Your task to perform on an android device: set the stopwatch Image 0: 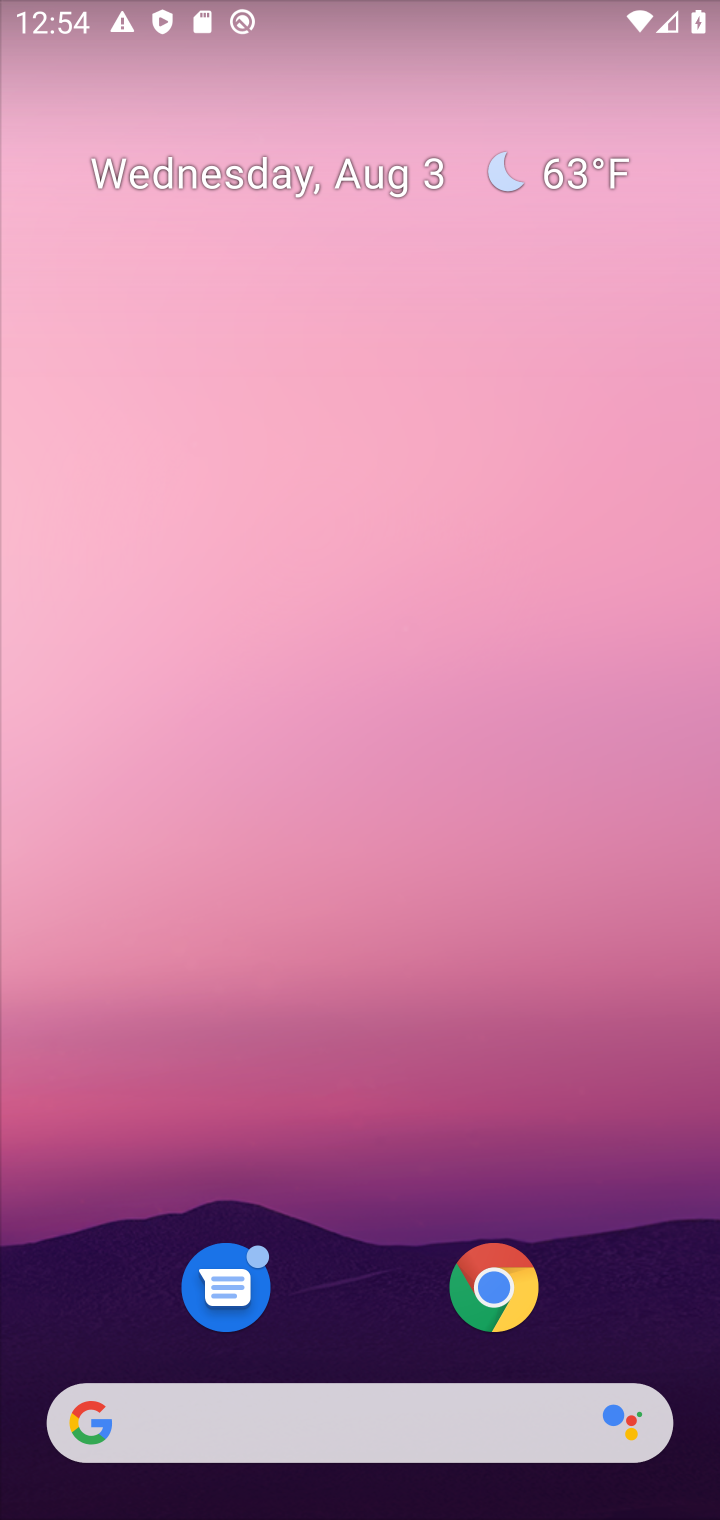
Step 0: press home button
Your task to perform on an android device: set the stopwatch Image 1: 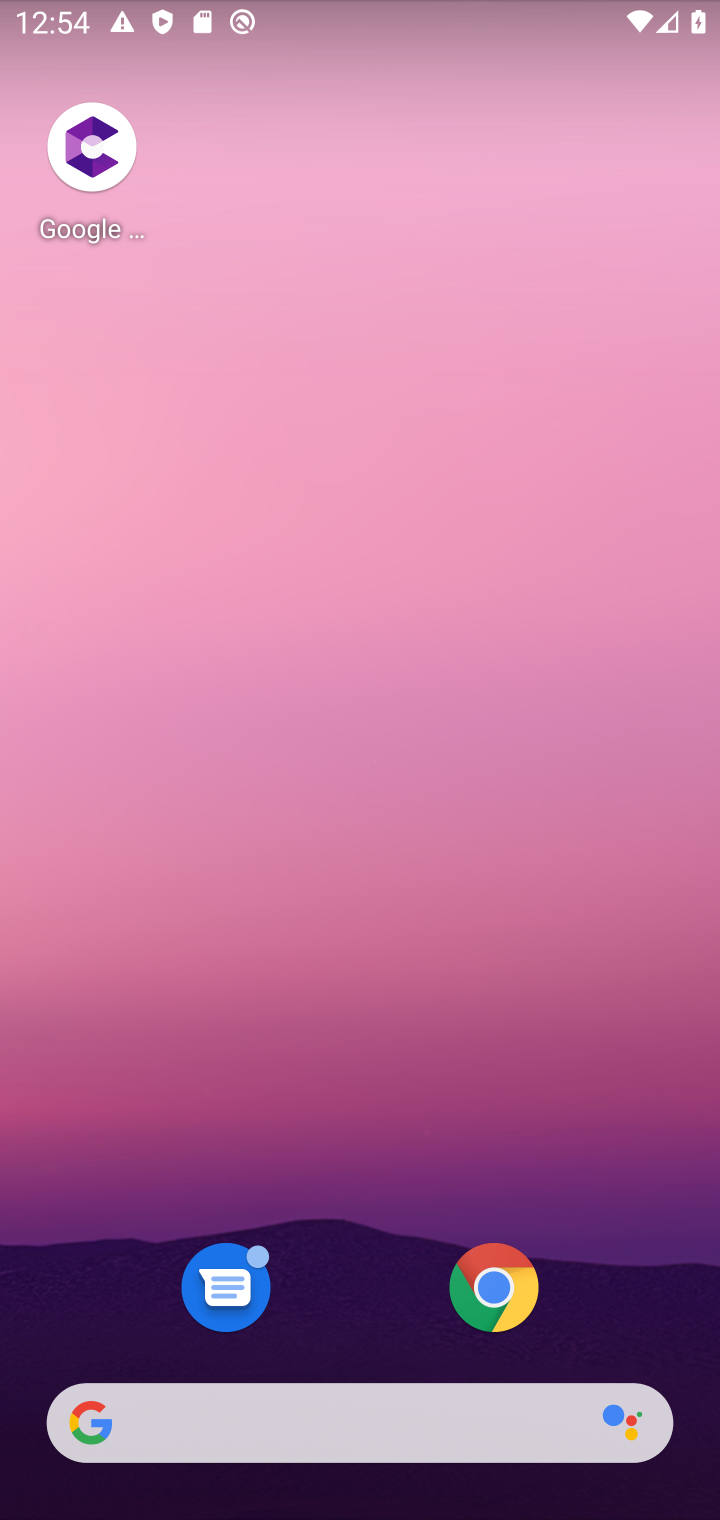
Step 1: drag from (352, 1316) to (436, 549)
Your task to perform on an android device: set the stopwatch Image 2: 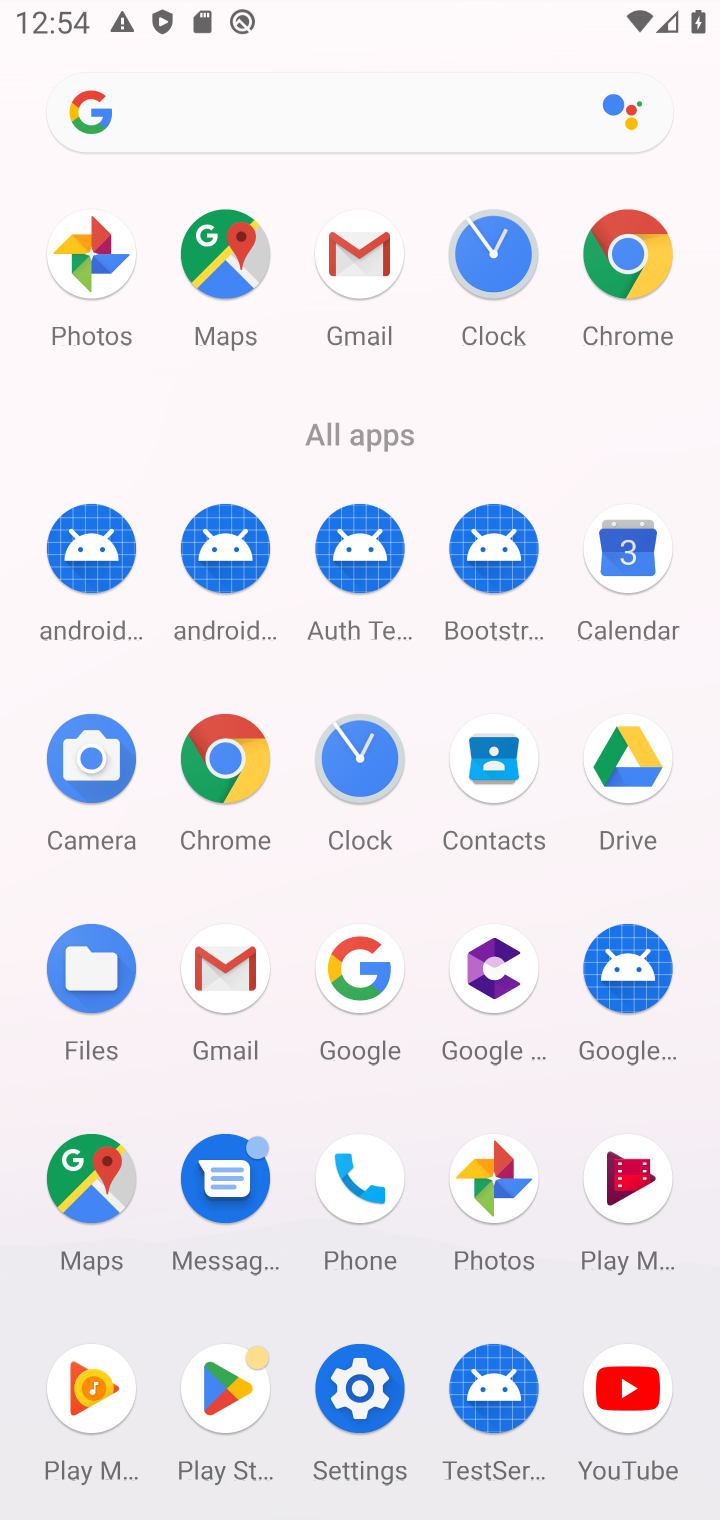
Step 2: click (364, 755)
Your task to perform on an android device: set the stopwatch Image 3: 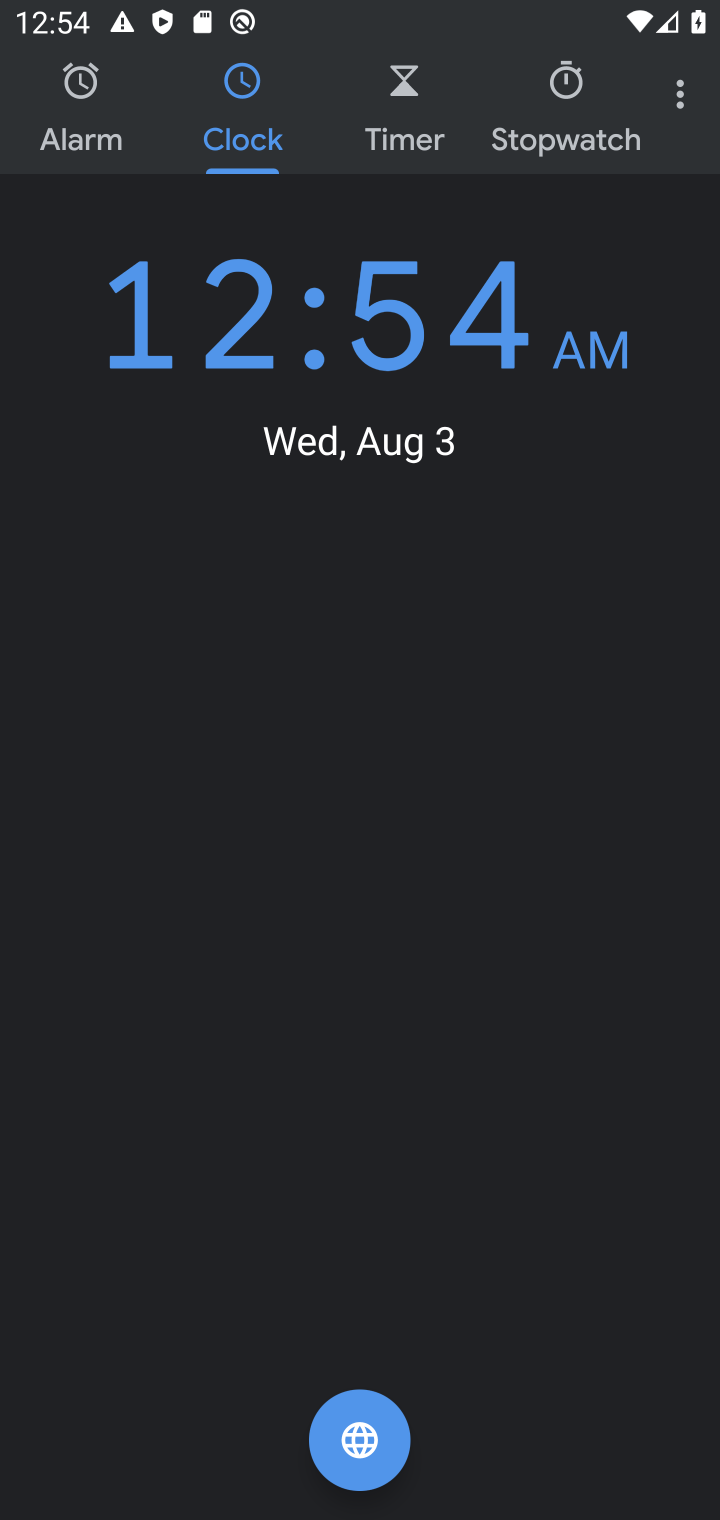
Step 3: click (556, 109)
Your task to perform on an android device: set the stopwatch Image 4: 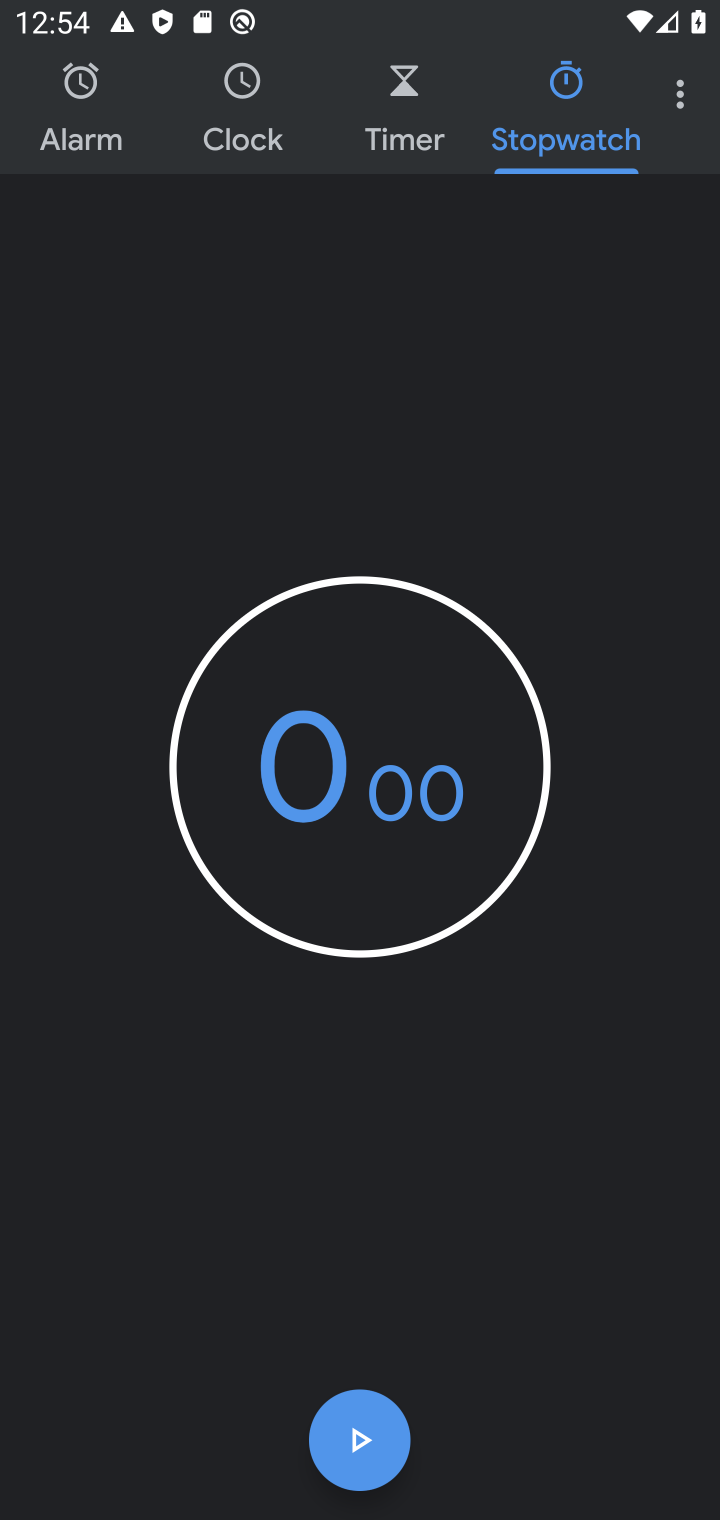
Step 4: click (361, 1442)
Your task to perform on an android device: set the stopwatch Image 5: 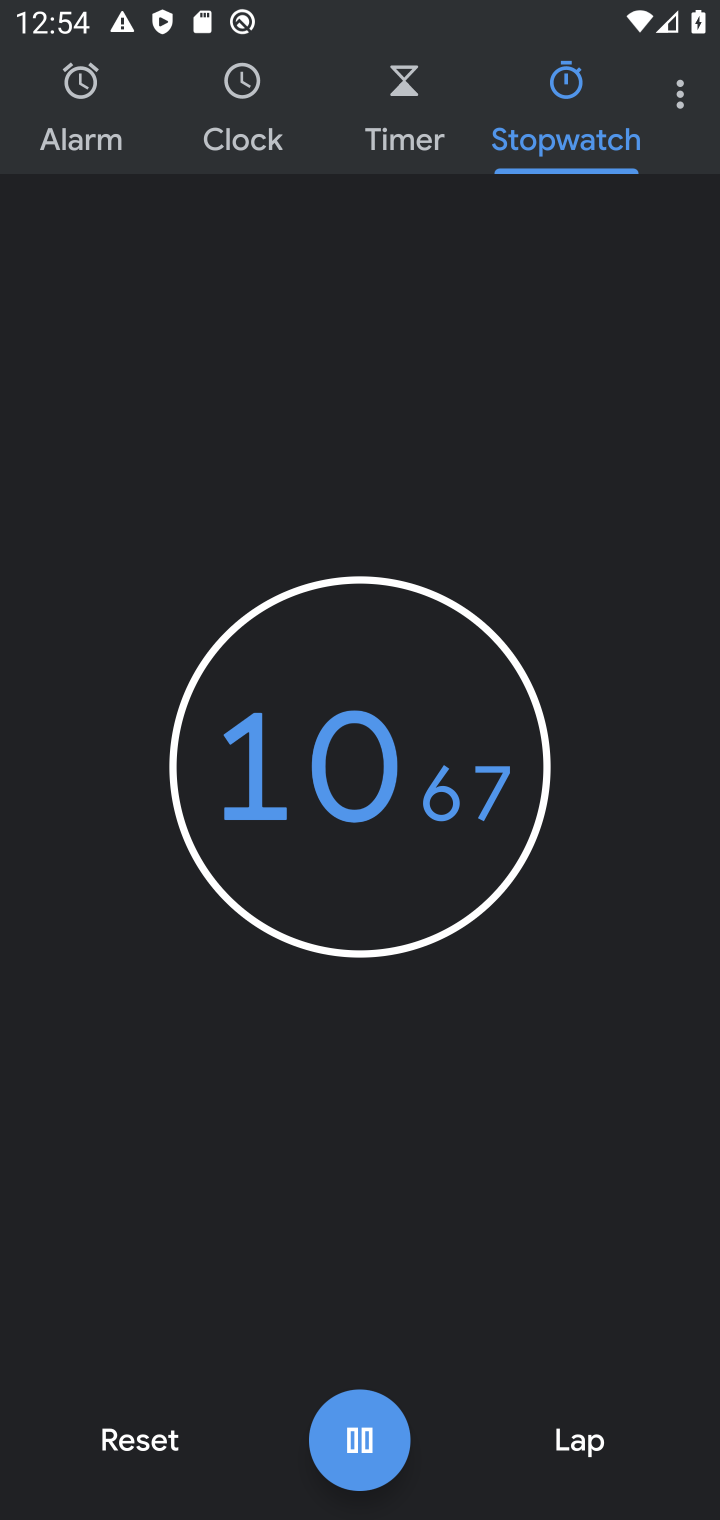
Step 5: task complete